Your task to perform on an android device: turn on data saver in the chrome app Image 0: 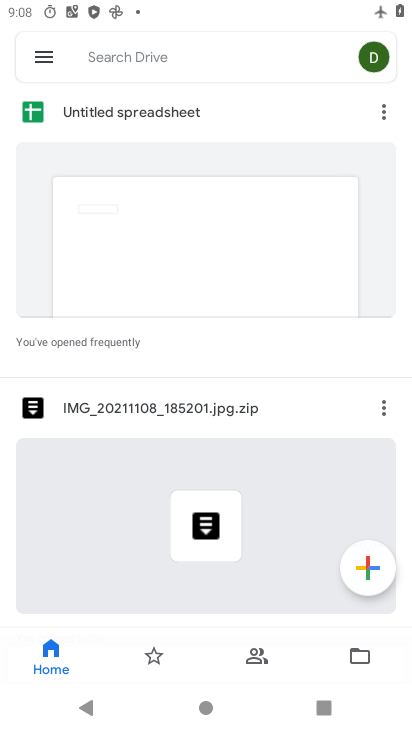
Step 0: press home button
Your task to perform on an android device: turn on data saver in the chrome app Image 1: 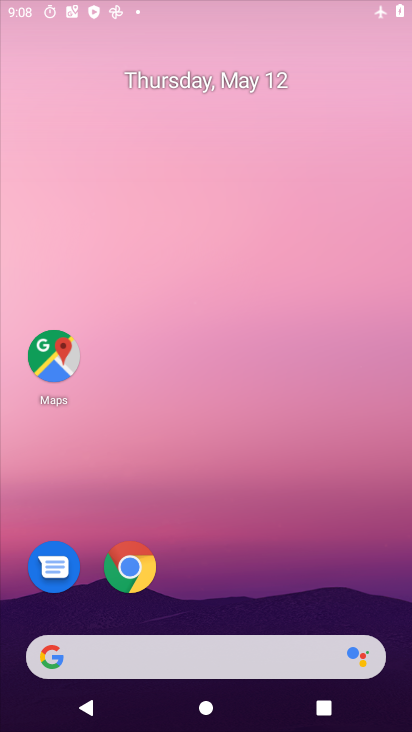
Step 1: drag from (207, 637) to (256, 192)
Your task to perform on an android device: turn on data saver in the chrome app Image 2: 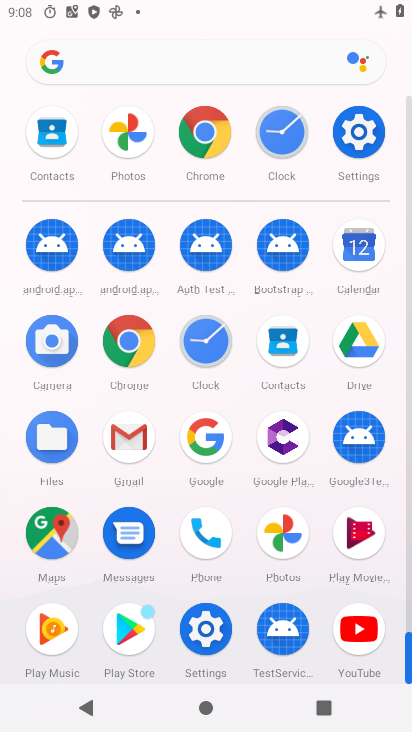
Step 2: click (204, 149)
Your task to perform on an android device: turn on data saver in the chrome app Image 3: 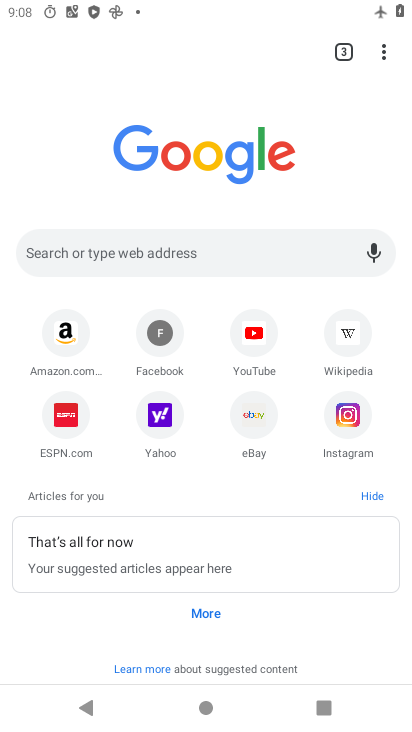
Step 3: click (391, 58)
Your task to perform on an android device: turn on data saver in the chrome app Image 4: 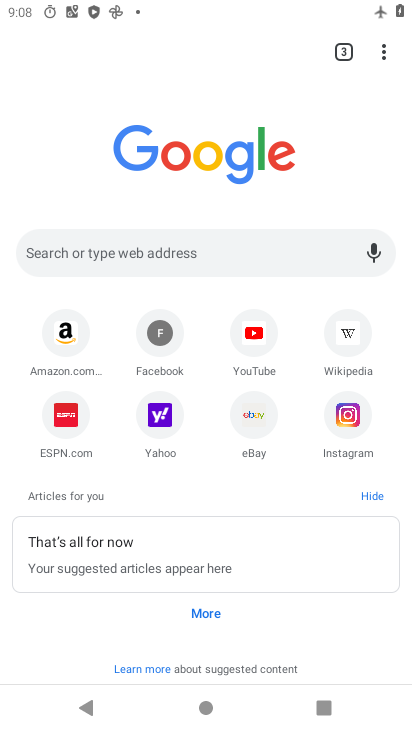
Step 4: click (382, 46)
Your task to perform on an android device: turn on data saver in the chrome app Image 5: 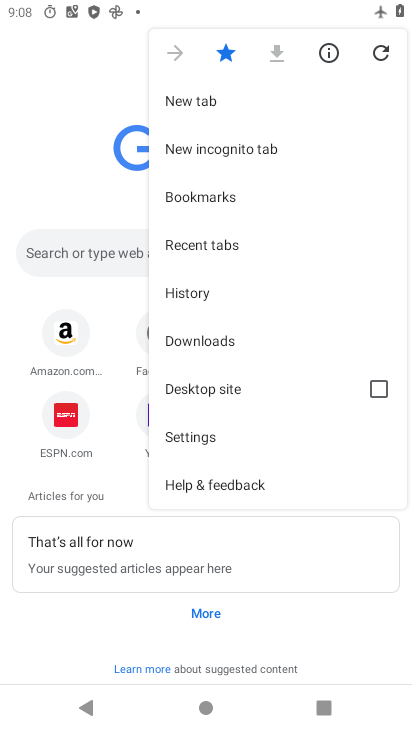
Step 5: click (211, 434)
Your task to perform on an android device: turn on data saver in the chrome app Image 6: 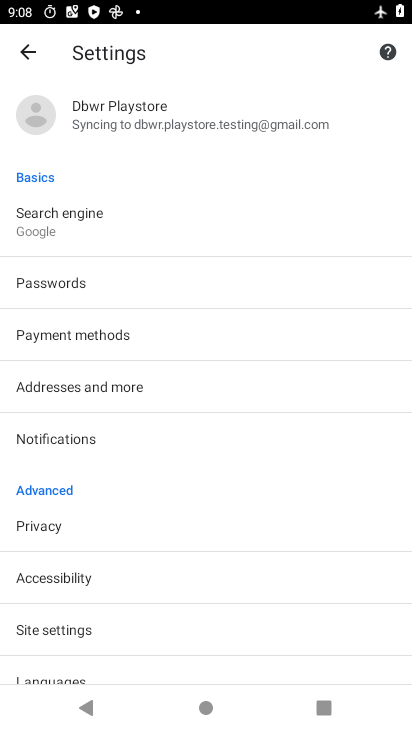
Step 6: drag from (94, 606) to (137, 256)
Your task to perform on an android device: turn on data saver in the chrome app Image 7: 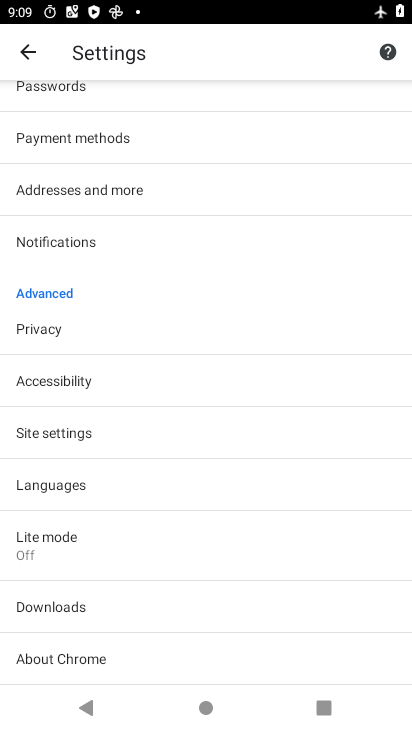
Step 7: click (123, 530)
Your task to perform on an android device: turn on data saver in the chrome app Image 8: 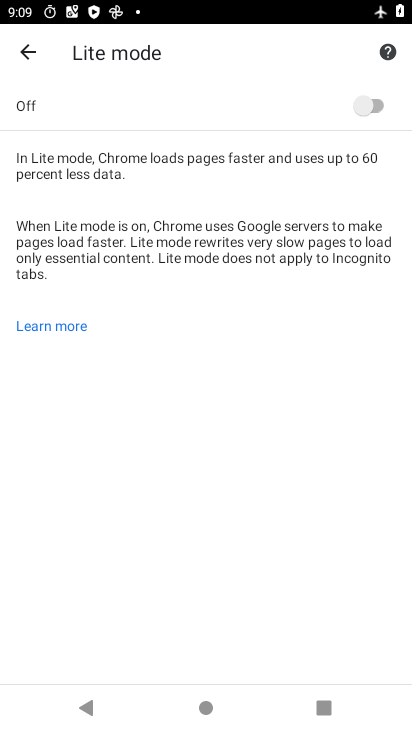
Step 8: click (372, 100)
Your task to perform on an android device: turn on data saver in the chrome app Image 9: 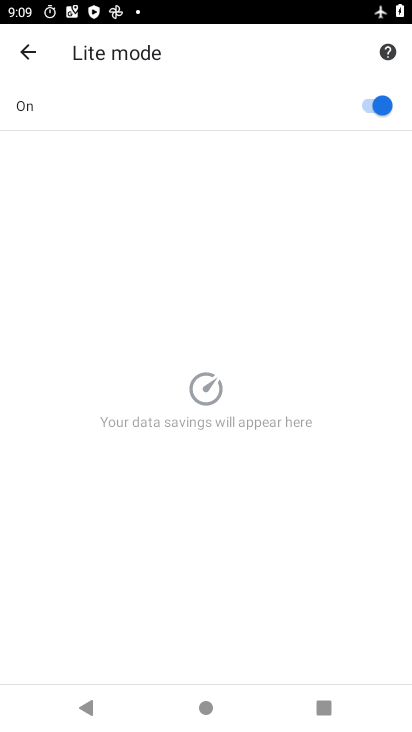
Step 9: task complete